Your task to perform on an android device: Open location settings Image 0: 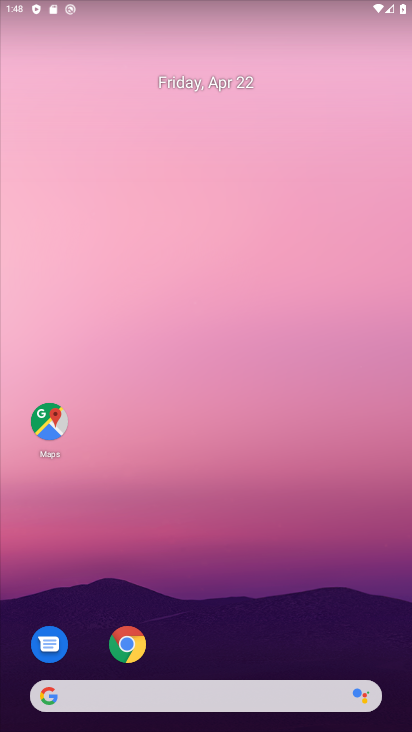
Step 0: drag from (226, 269) to (214, 180)
Your task to perform on an android device: Open location settings Image 1: 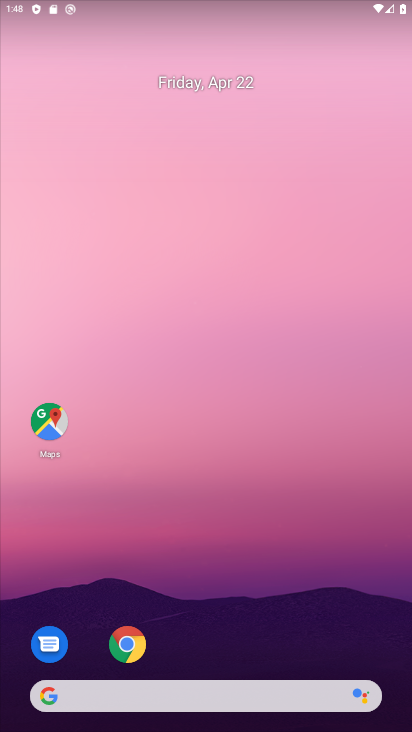
Step 1: drag from (223, 597) to (241, 112)
Your task to perform on an android device: Open location settings Image 2: 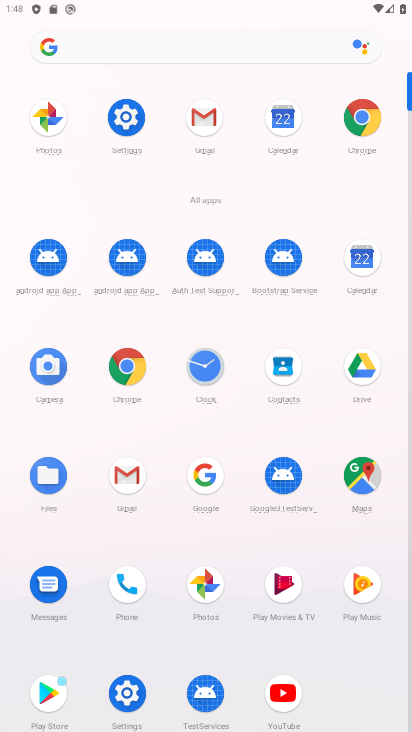
Step 2: drag from (221, 583) to (209, 159)
Your task to perform on an android device: Open location settings Image 3: 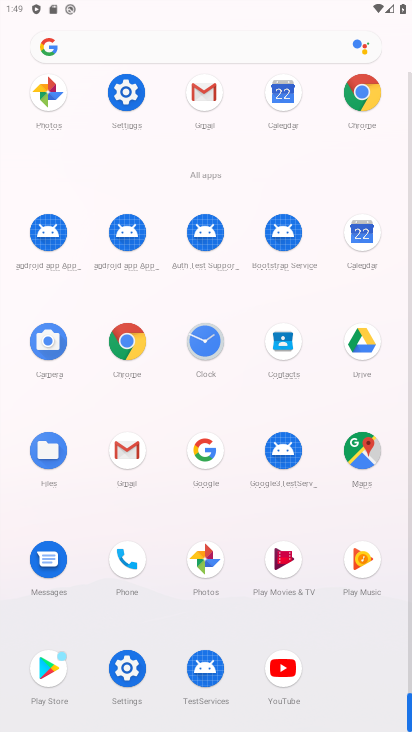
Step 3: drag from (323, 611) to (271, 301)
Your task to perform on an android device: Open location settings Image 4: 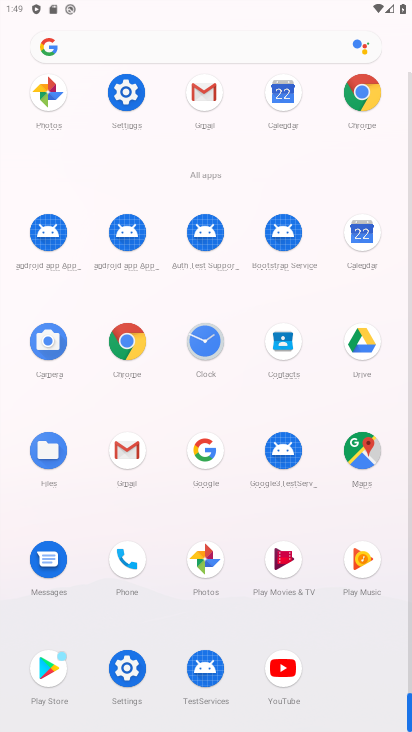
Step 4: click (125, 115)
Your task to perform on an android device: Open location settings Image 5: 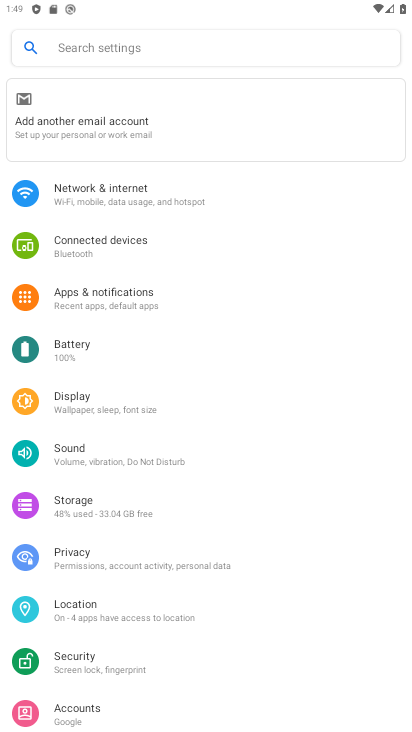
Step 5: click (80, 615)
Your task to perform on an android device: Open location settings Image 6: 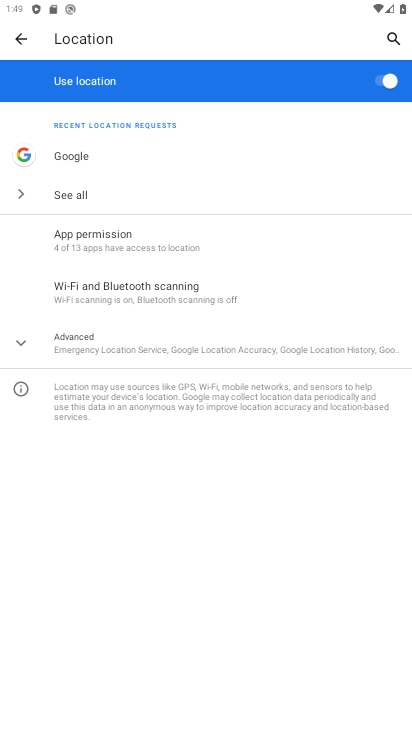
Step 6: task complete